Your task to perform on an android device: Open Android settings Image 0: 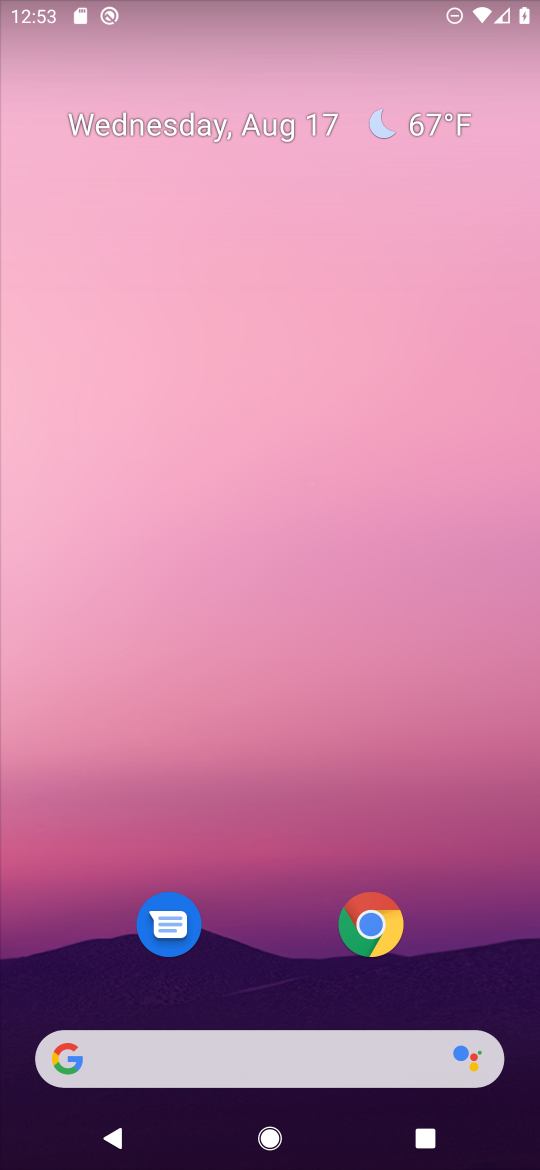
Step 0: drag from (259, 967) to (210, 136)
Your task to perform on an android device: Open Android settings Image 1: 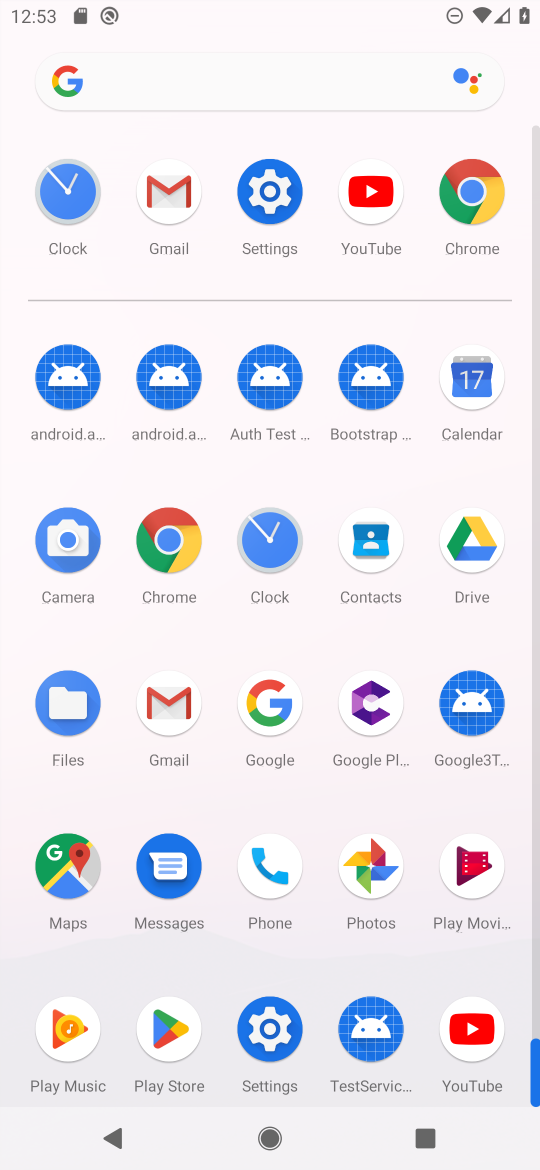
Step 1: click (275, 207)
Your task to perform on an android device: Open Android settings Image 2: 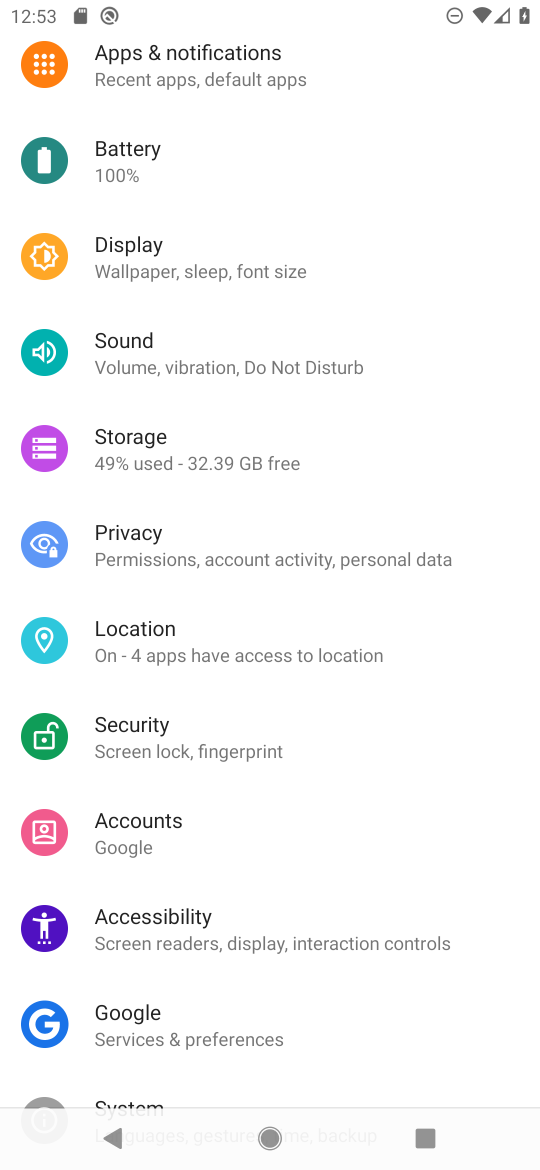
Step 2: task complete